Your task to perform on an android device: turn pop-ups on in chrome Image 0: 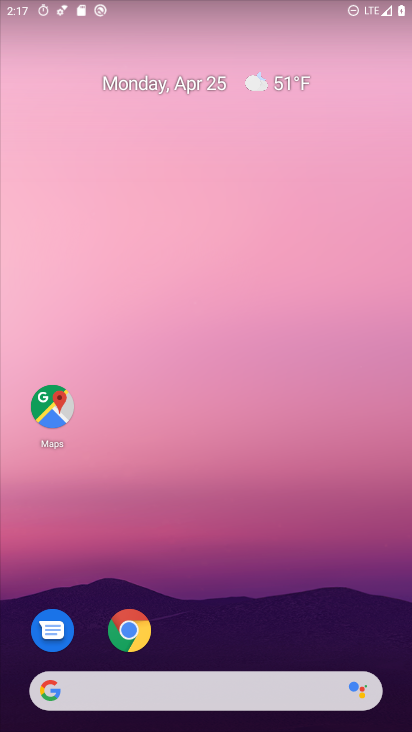
Step 0: drag from (202, 634) to (224, 129)
Your task to perform on an android device: turn pop-ups on in chrome Image 1: 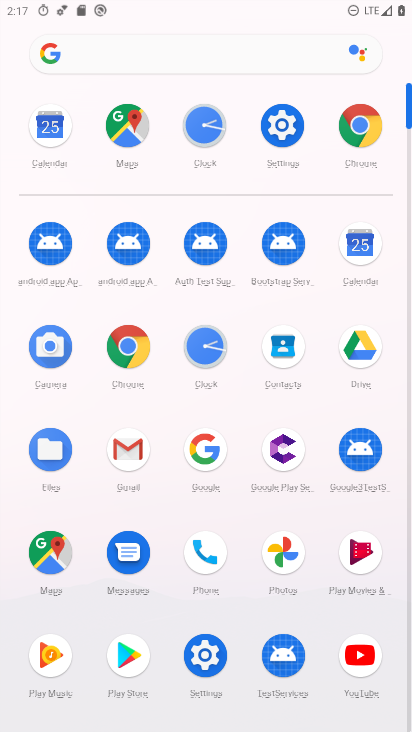
Step 1: click (123, 346)
Your task to perform on an android device: turn pop-ups on in chrome Image 2: 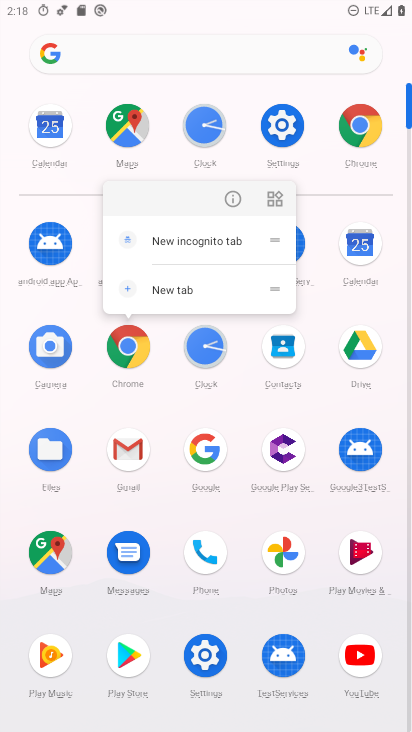
Step 2: click (234, 192)
Your task to perform on an android device: turn pop-ups on in chrome Image 3: 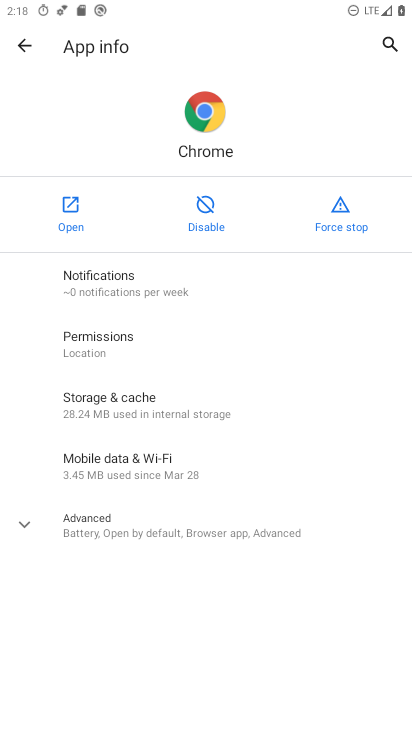
Step 3: click (78, 218)
Your task to perform on an android device: turn pop-ups on in chrome Image 4: 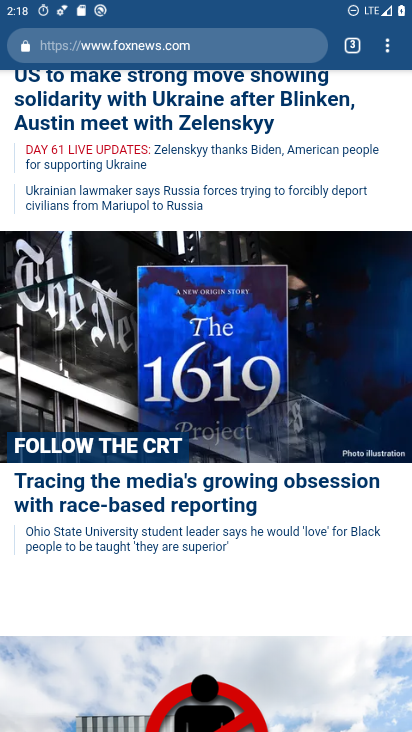
Step 4: drag from (215, 540) to (222, 388)
Your task to perform on an android device: turn pop-ups on in chrome Image 5: 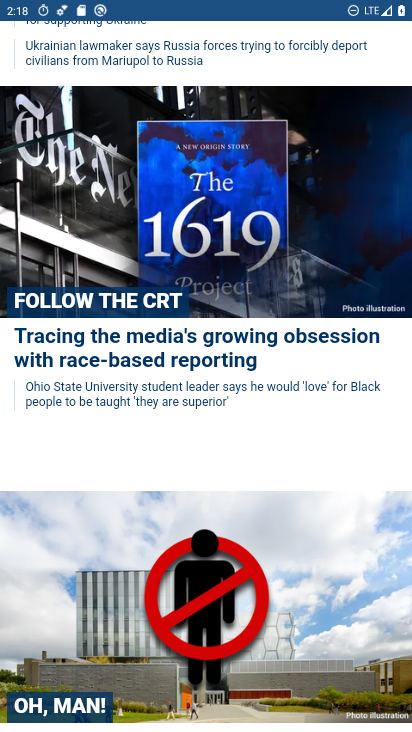
Step 5: drag from (383, 181) to (324, 461)
Your task to perform on an android device: turn pop-ups on in chrome Image 6: 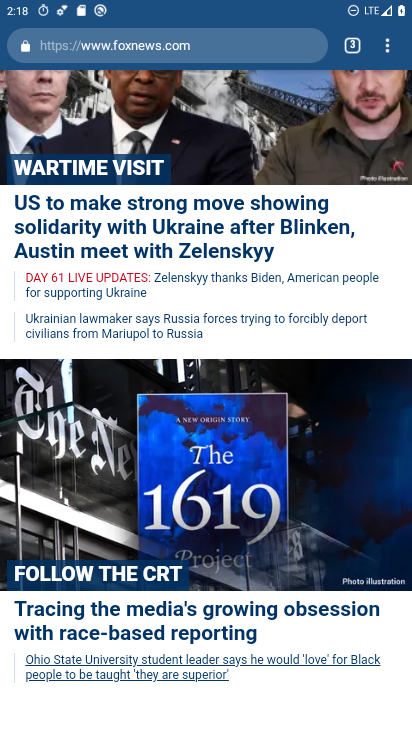
Step 6: drag from (392, 49) to (300, 590)
Your task to perform on an android device: turn pop-ups on in chrome Image 7: 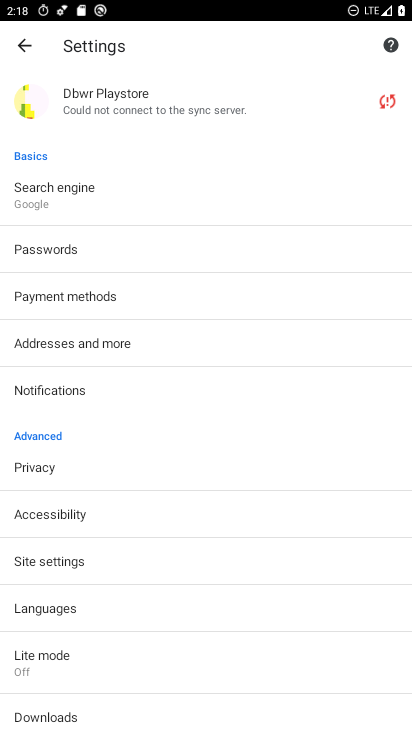
Step 7: click (109, 549)
Your task to perform on an android device: turn pop-ups on in chrome Image 8: 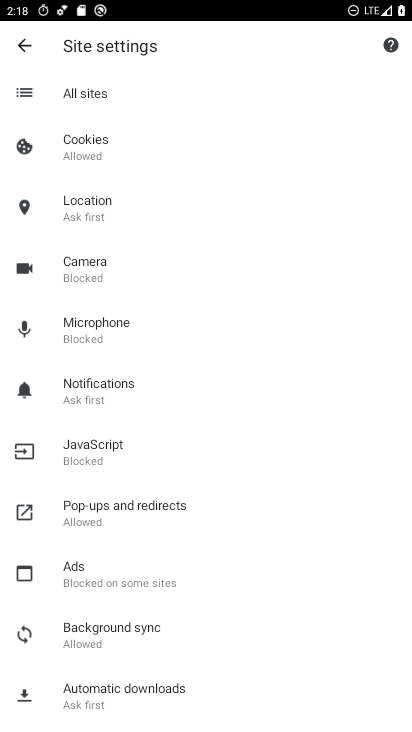
Step 8: click (128, 516)
Your task to perform on an android device: turn pop-ups on in chrome Image 9: 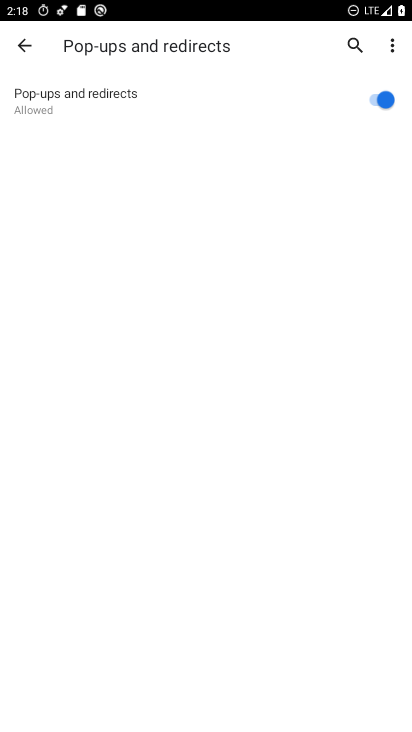
Step 9: task complete